Your task to perform on an android device: install app "Airtel Thanks" Image 0: 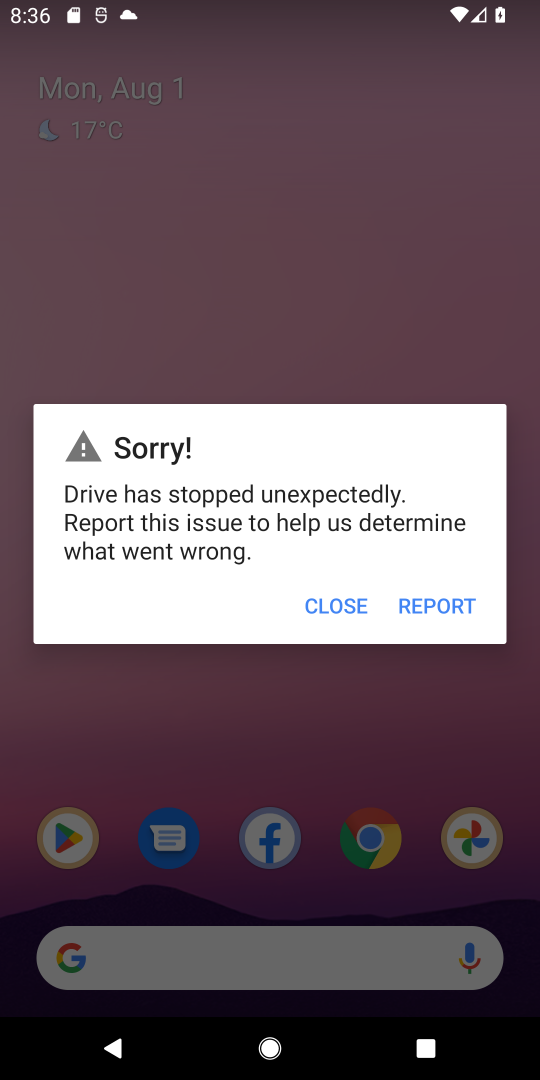
Step 0: press home button
Your task to perform on an android device: install app "Airtel Thanks" Image 1: 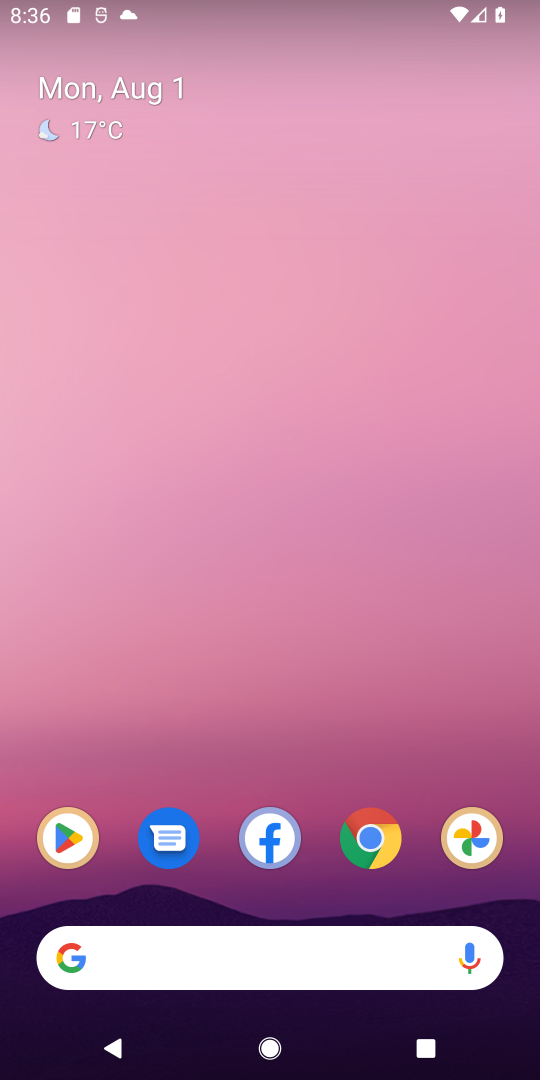
Step 1: click (83, 834)
Your task to perform on an android device: install app "Airtel Thanks" Image 2: 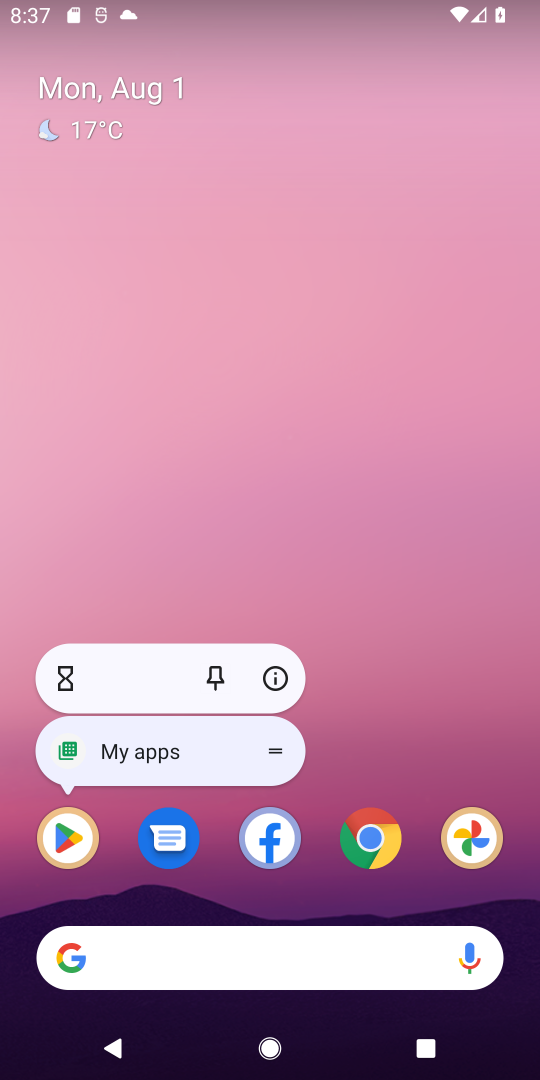
Step 2: click (70, 832)
Your task to perform on an android device: install app "Airtel Thanks" Image 3: 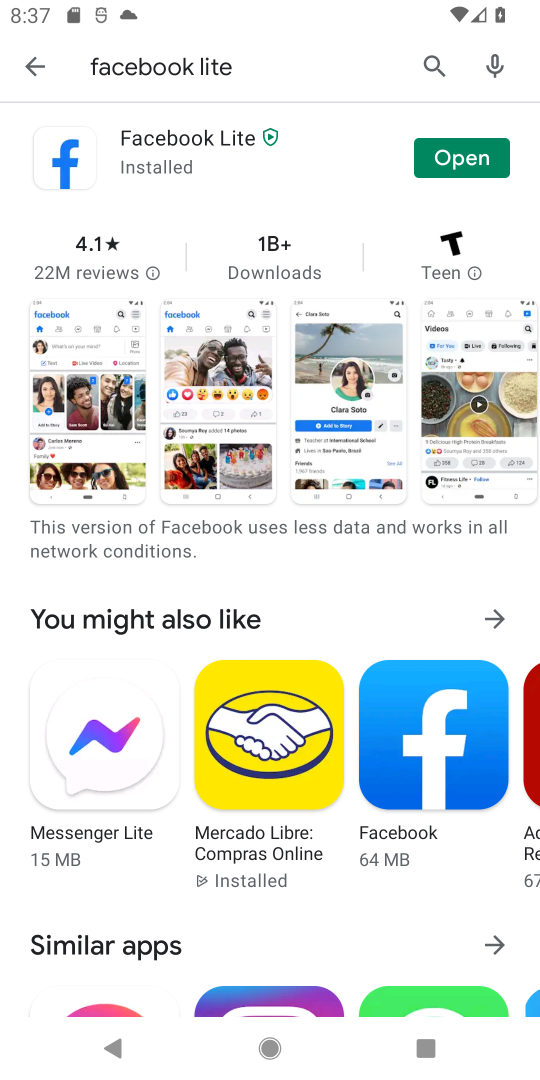
Step 3: click (427, 69)
Your task to perform on an android device: install app "Airtel Thanks" Image 4: 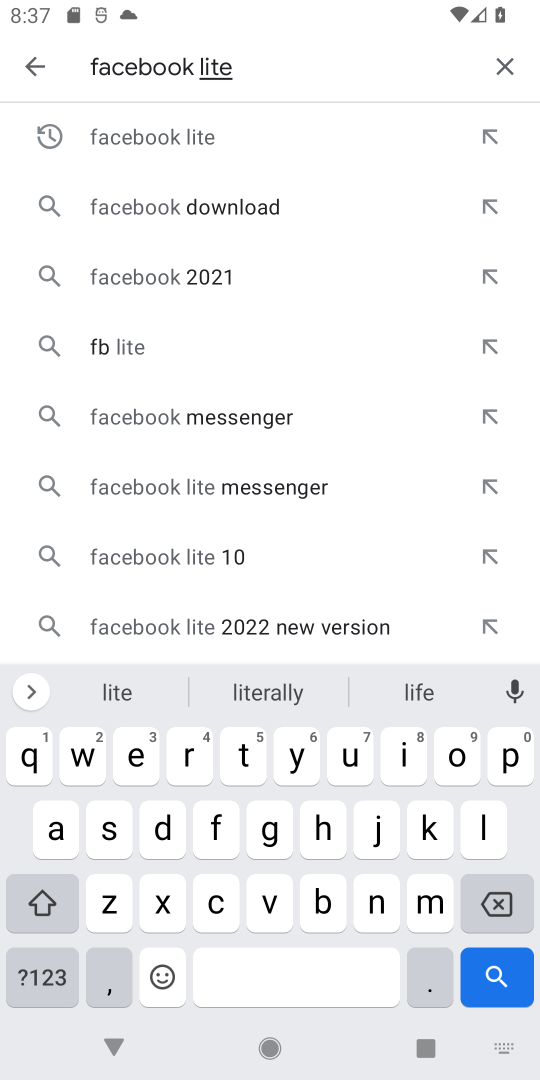
Step 4: click (499, 60)
Your task to perform on an android device: install app "Airtel Thanks" Image 5: 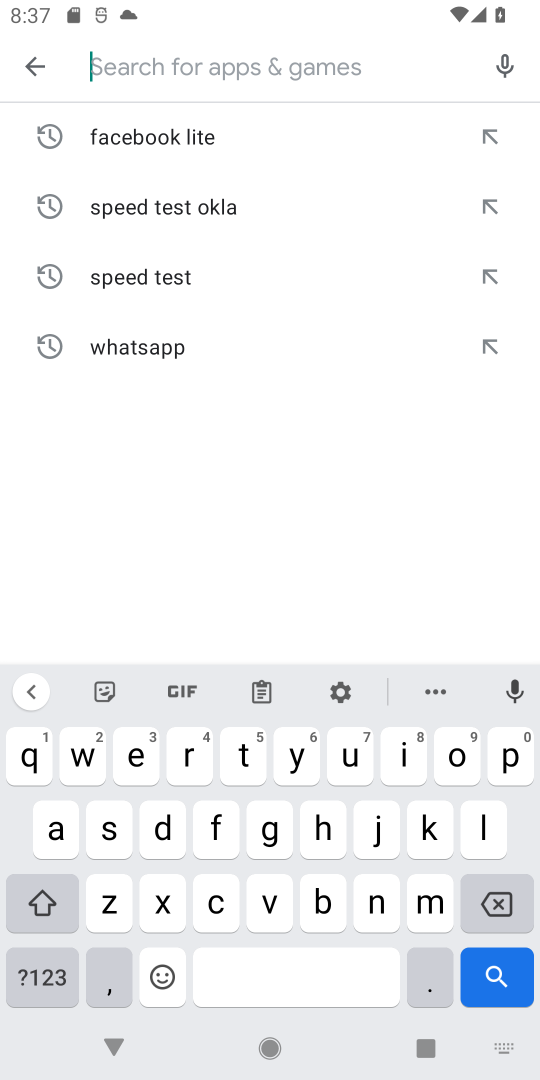
Step 5: click (49, 838)
Your task to perform on an android device: install app "Airtel Thanks" Image 6: 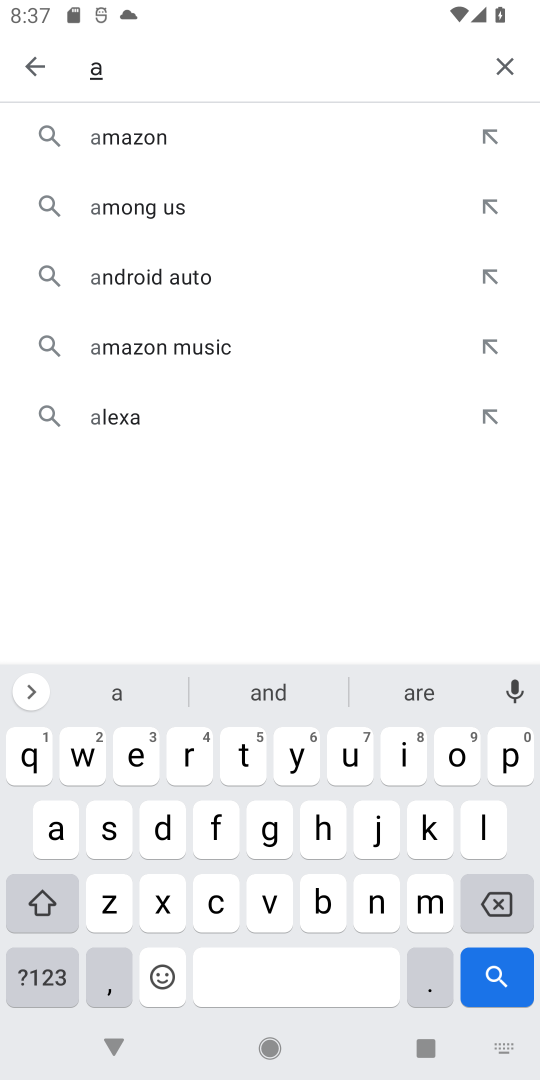
Step 6: click (387, 763)
Your task to perform on an android device: install app "Airtel Thanks" Image 7: 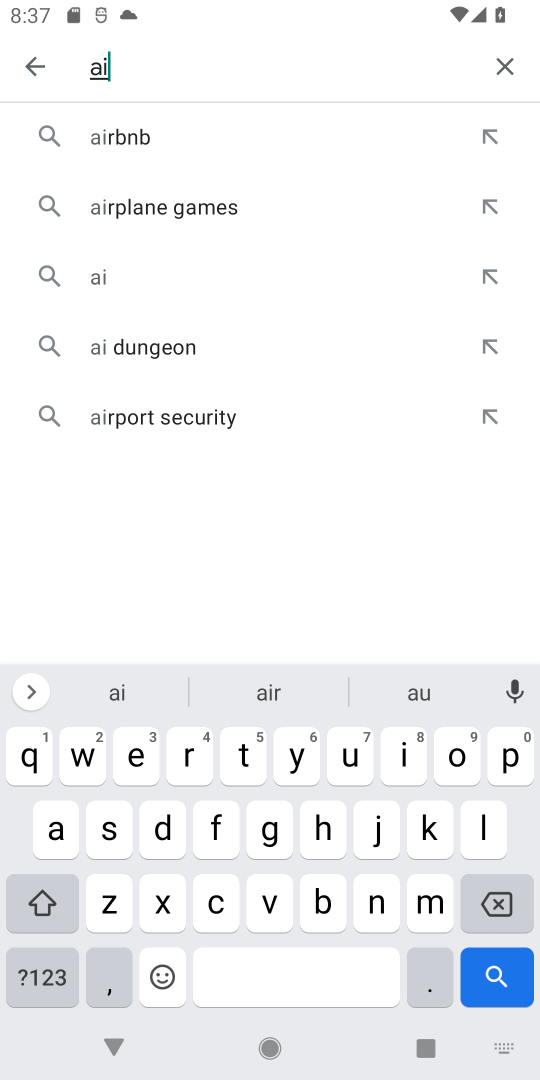
Step 7: click (239, 752)
Your task to perform on an android device: install app "Airtel Thanks" Image 8: 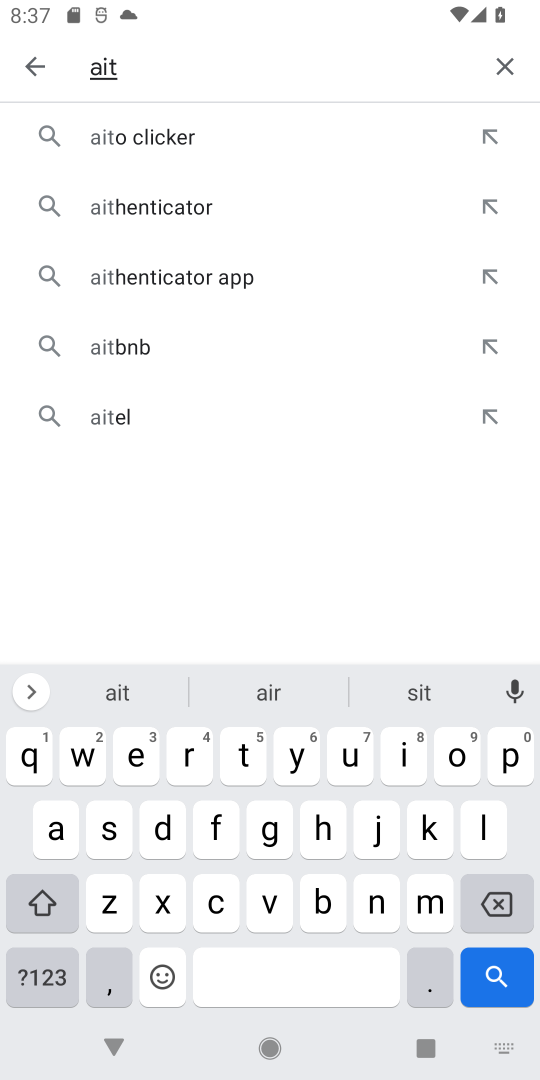
Step 8: click (132, 747)
Your task to perform on an android device: install app "Airtel Thanks" Image 9: 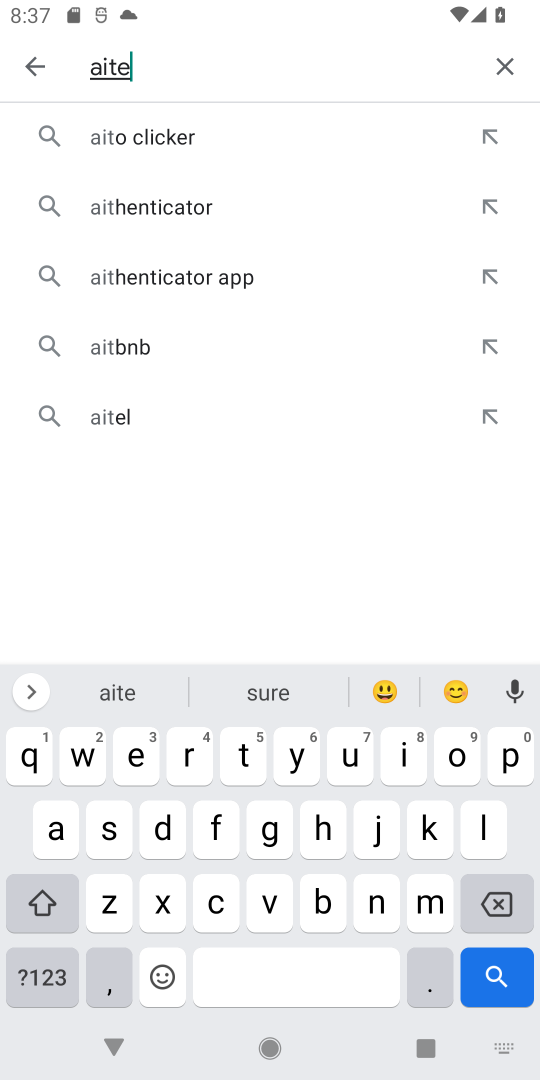
Step 9: click (477, 834)
Your task to perform on an android device: install app "Airtel Thanks" Image 10: 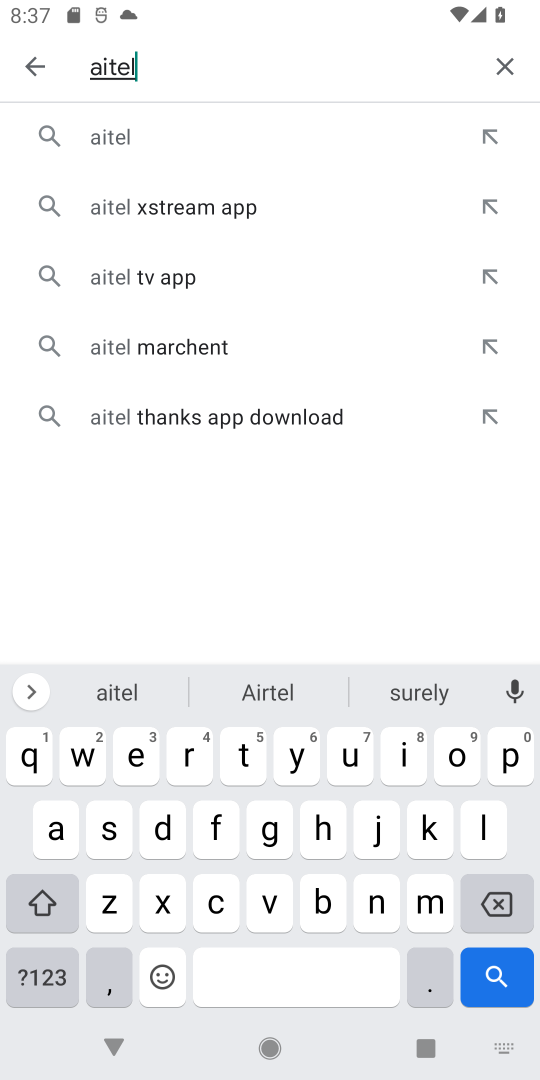
Step 10: click (260, 701)
Your task to perform on an android device: install app "Airtel Thanks" Image 11: 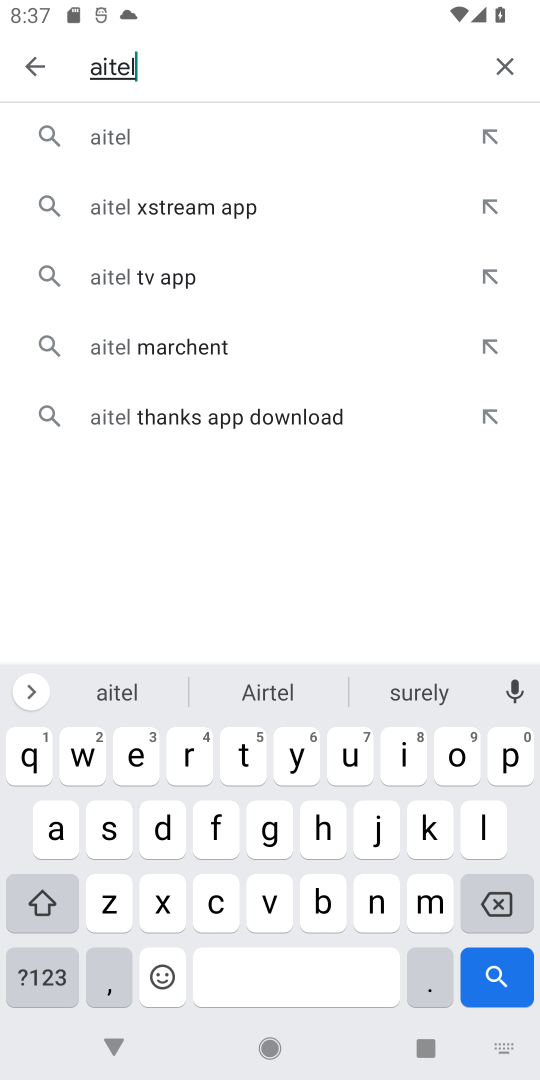
Step 11: click (265, 706)
Your task to perform on an android device: install app "Airtel Thanks" Image 12: 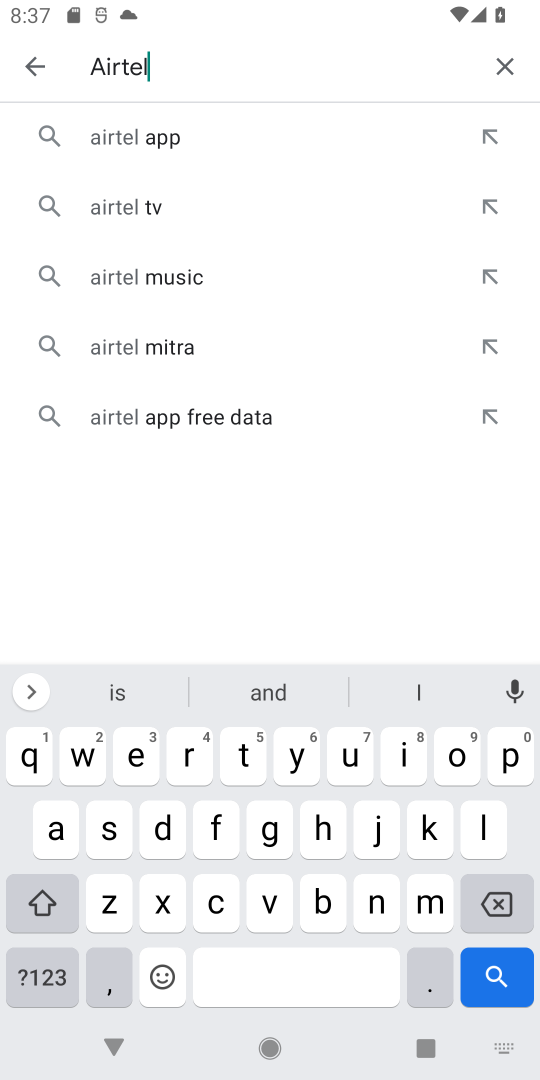
Step 12: click (244, 761)
Your task to perform on an android device: install app "Airtel Thanks" Image 13: 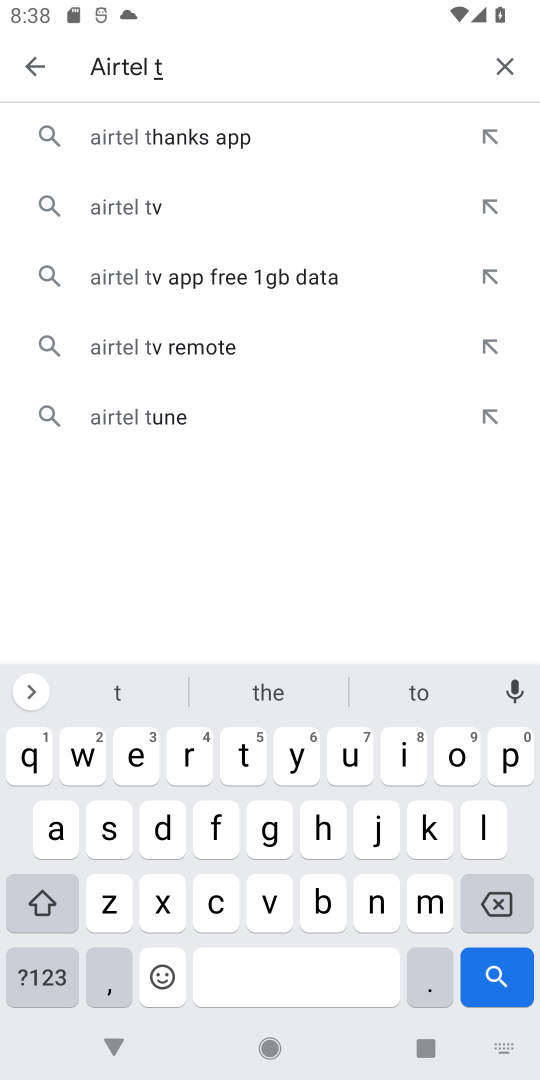
Step 13: click (321, 815)
Your task to perform on an android device: install app "Airtel Thanks" Image 14: 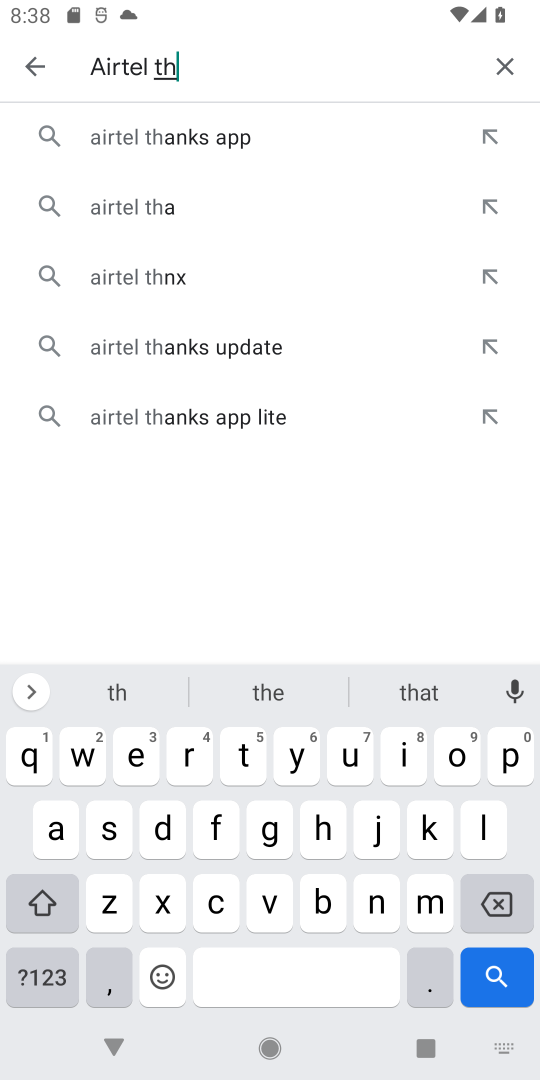
Step 14: click (156, 147)
Your task to perform on an android device: install app "Airtel Thanks" Image 15: 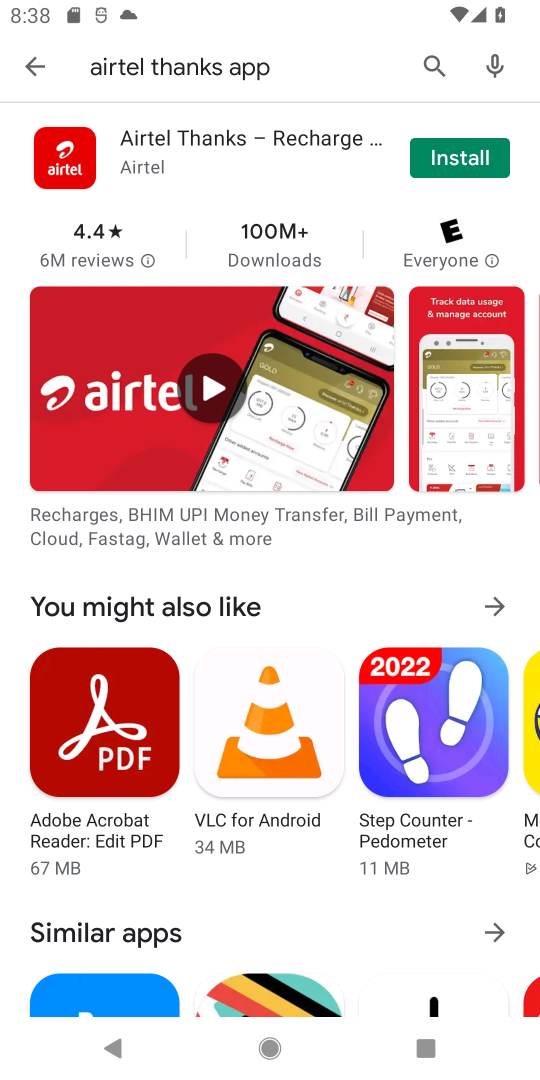
Step 15: click (444, 159)
Your task to perform on an android device: install app "Airtel Thanks" Image 16: 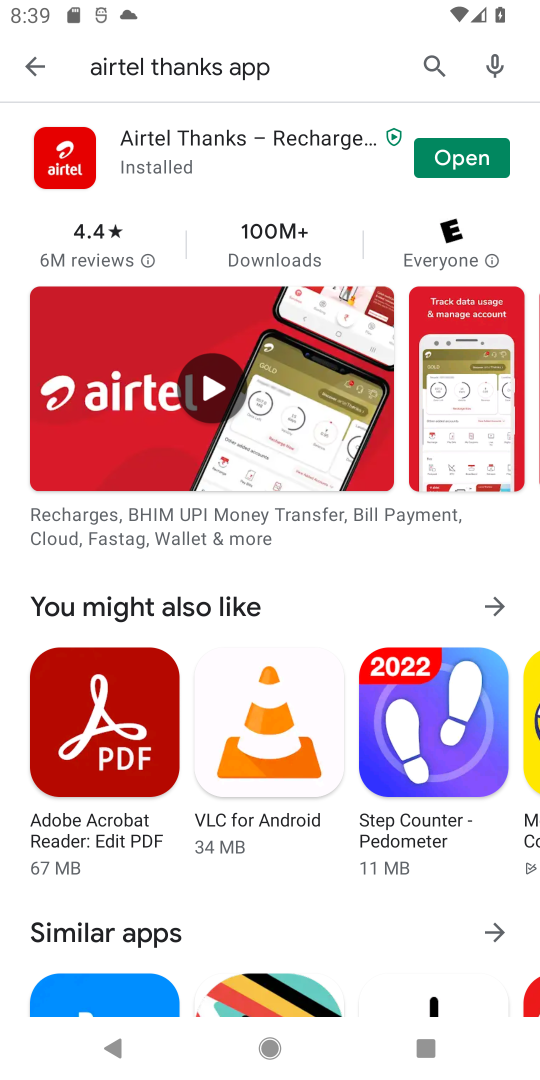
Step 16: task complete